Your task to perform on an android device: Go to Wikipedia Image 0: 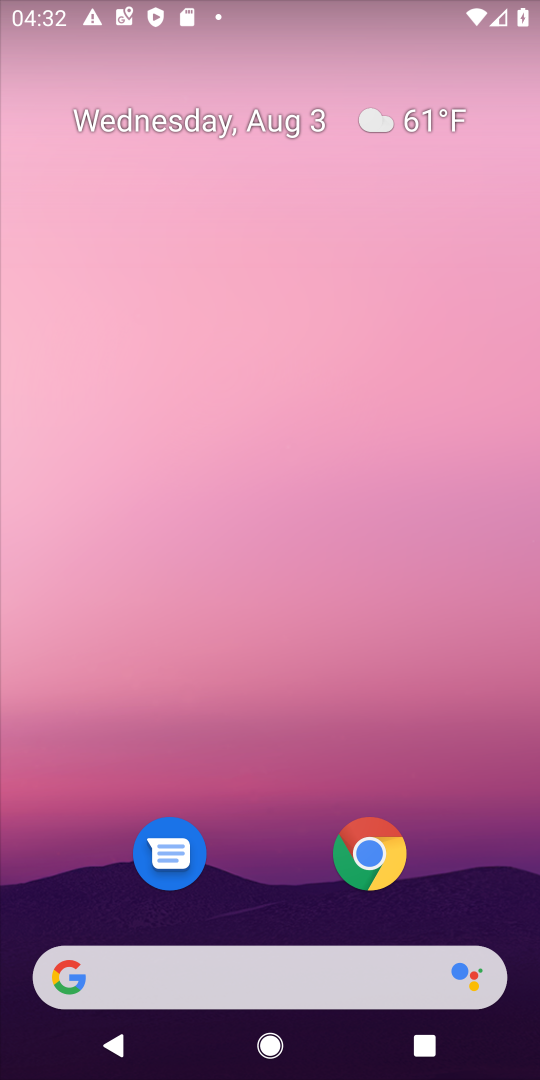
Step 0: click (380, 850)
Your task to perform on an android device: Go to Wikipedia Image 1: 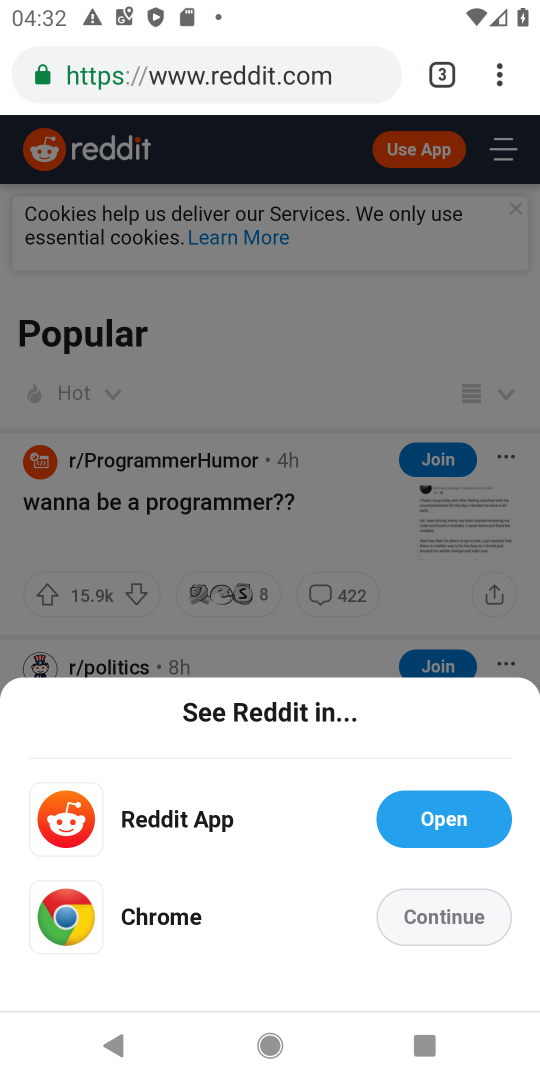
Step 1: click (502, 72)
Your task to perform on an android device: Go to Wikipedia Image 2: 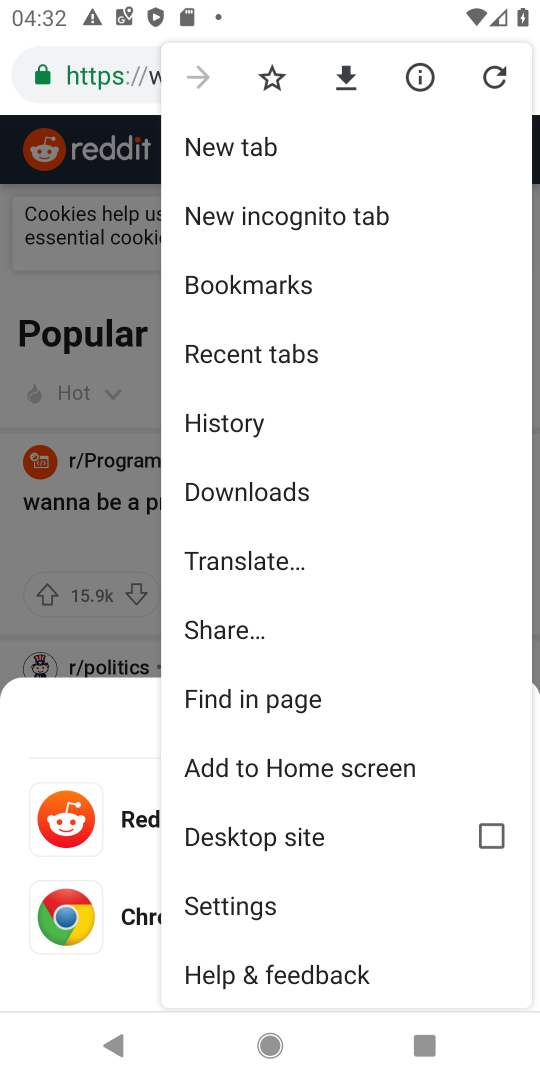
Step 2: click (261, 149)
Your task to perform on an android device: Go to Wikipedia Image 3: 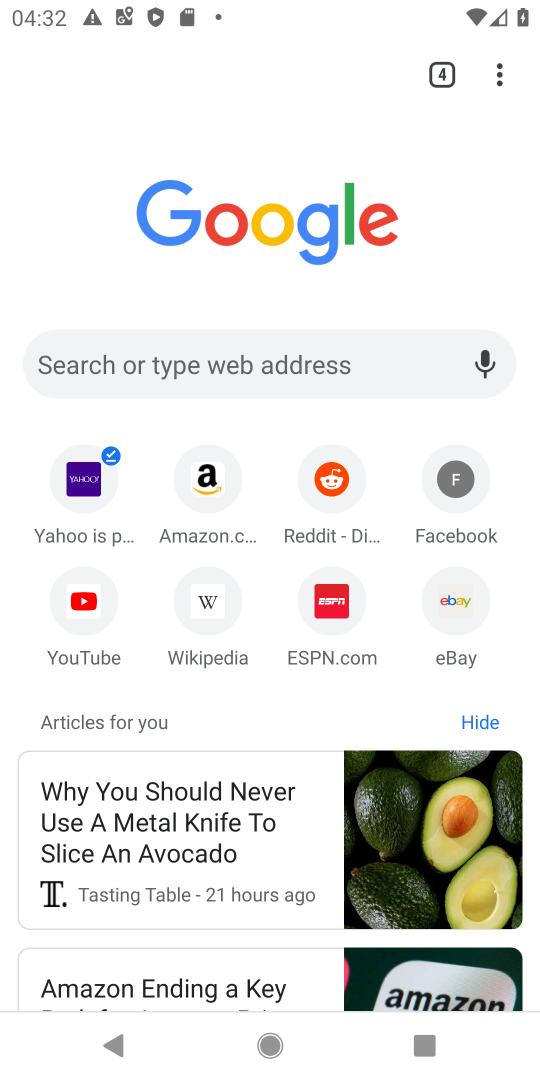
Step 3: click (202, 595)
Your task to perform on an android device: Go to Wikipedia Image 4: 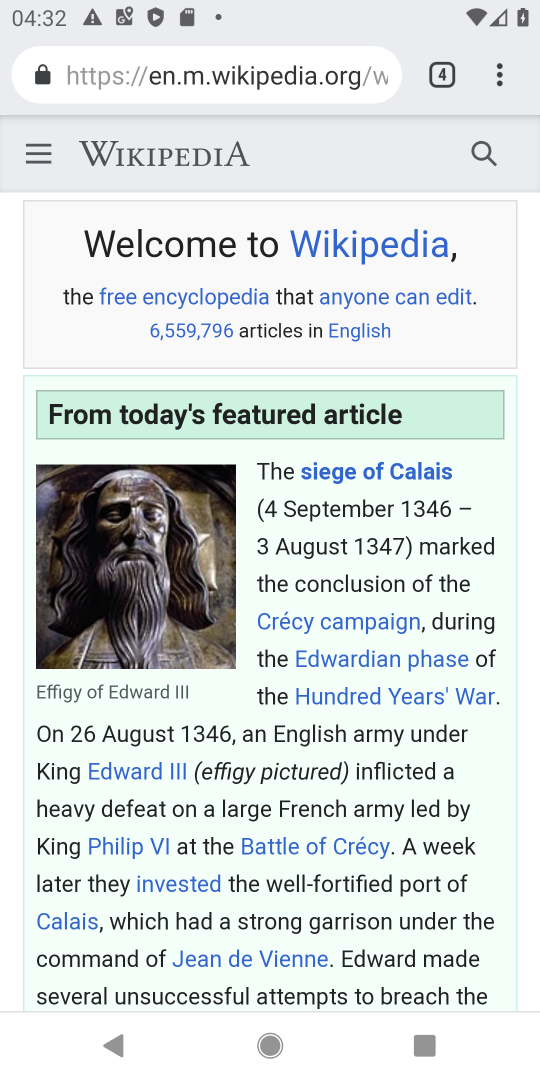
Step 4: task complete